Your task to perform on an android device: refresh tabs in the chrome app Image 0: 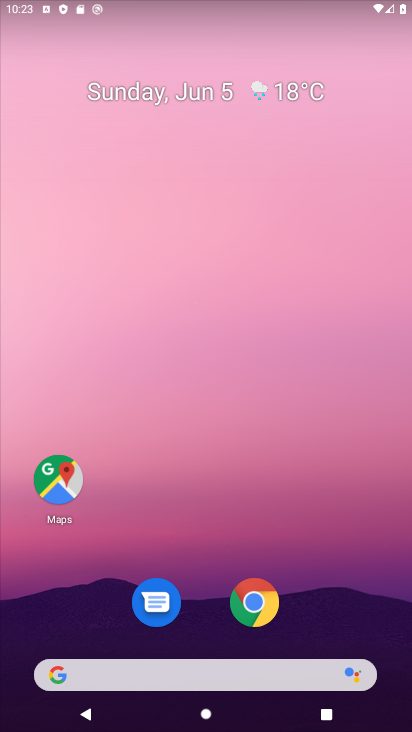
Step 0: click (272, 596)
Your task to perform on an android device: refresh tabs in the chrome app Image 1: 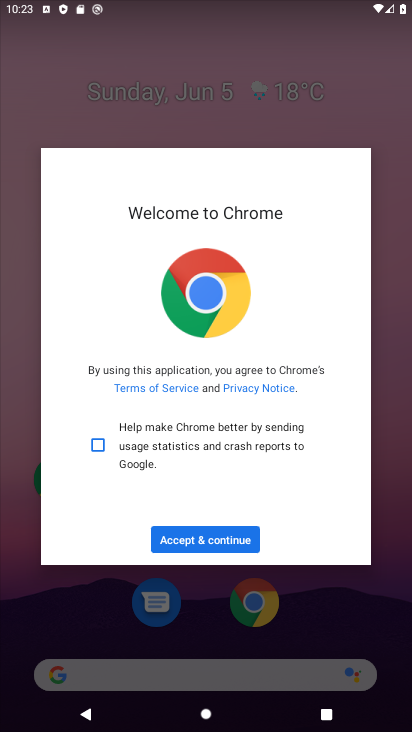
Step 1: task complete